Your task to perform on an android device: add a contact Image 0: 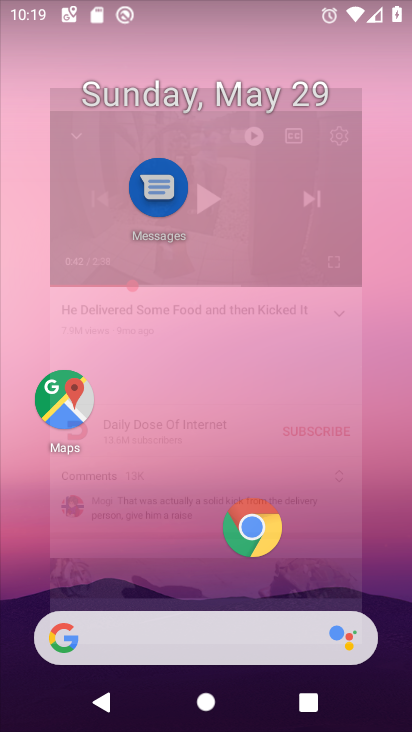
Step 0: press home button
Your task to perform on an android device: add a contact Image 1: 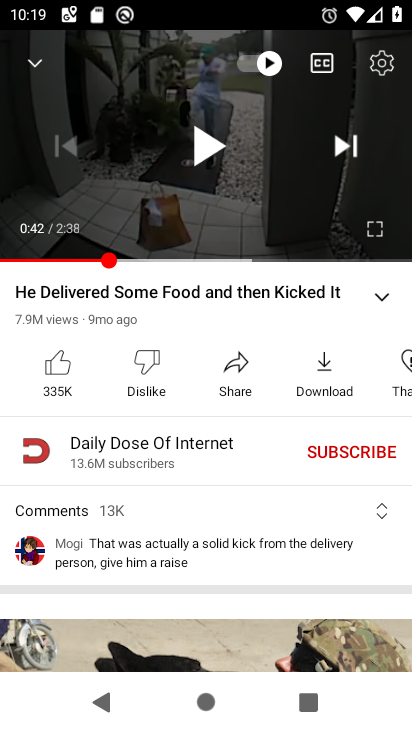
Step 1: press home button
Your task to perform on an android device: add a contact Image 2: 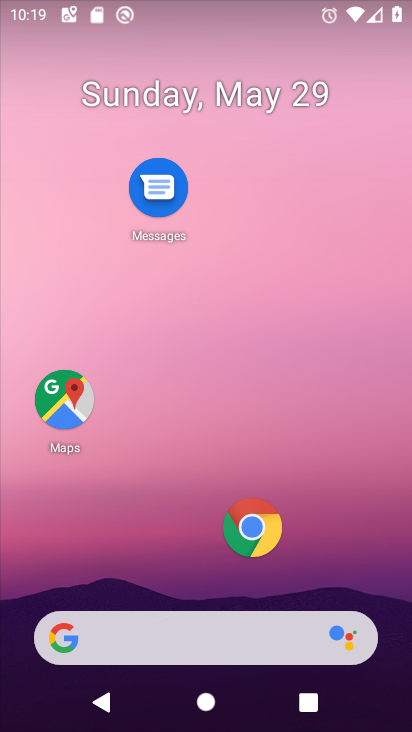
Step 2: drag from (207, 591) to (227, 83)
Your task to perform on an android device: add a contact Image 3: 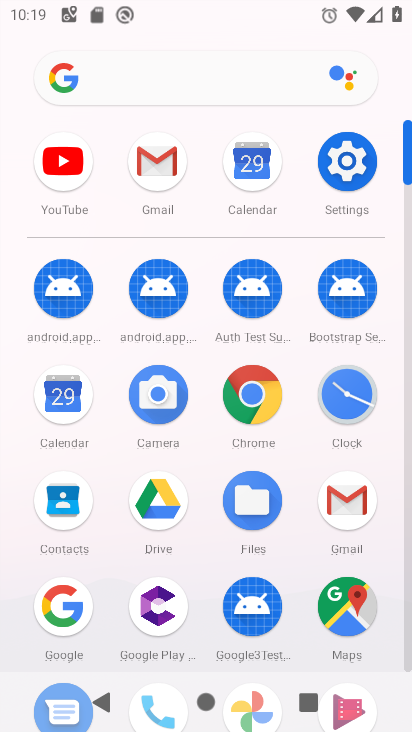
Step 3: click (65, 498)
Your task to perform on an android device: add a contact Image 4: 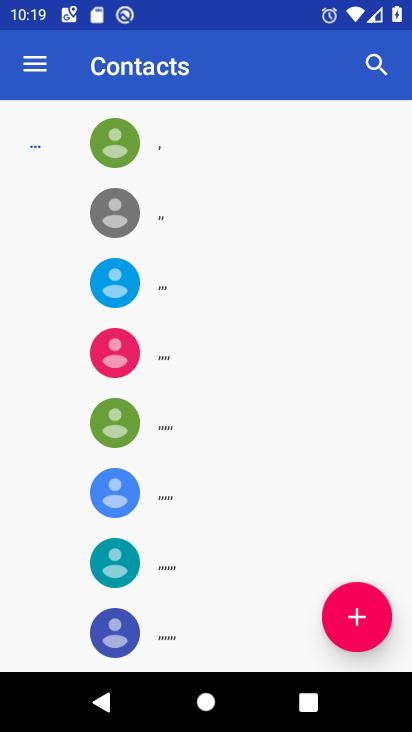
Step 4: click (359, 618)
Your task to perform on an android device: add a contact Image 5: 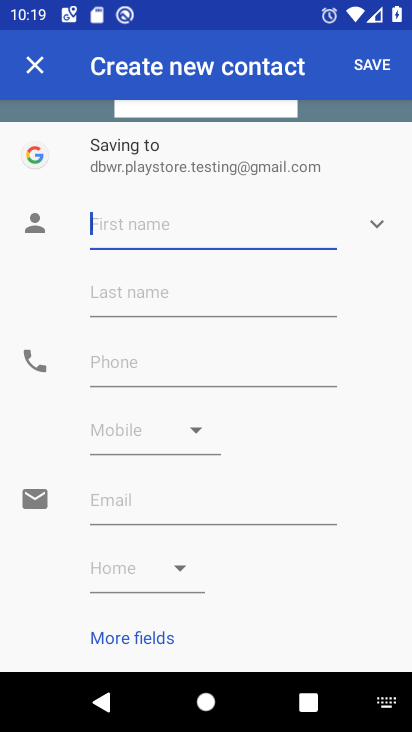
Step 5: type "hgftest"
Your task to perform on an android device: add a contact Image 6: 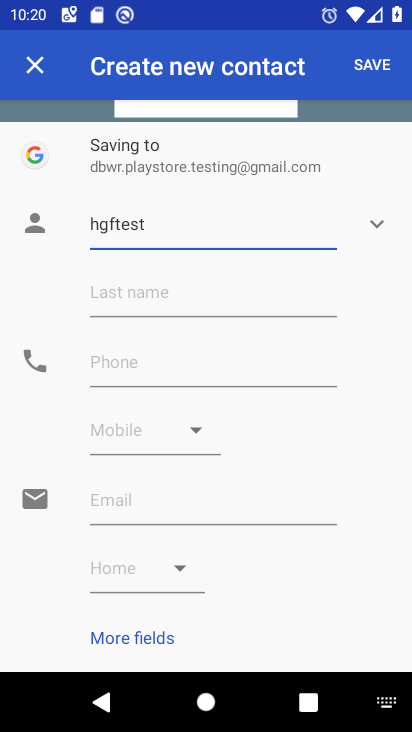
Step 6: click (380, 68)
Your task to perform on an android device: add a contact Image 7: 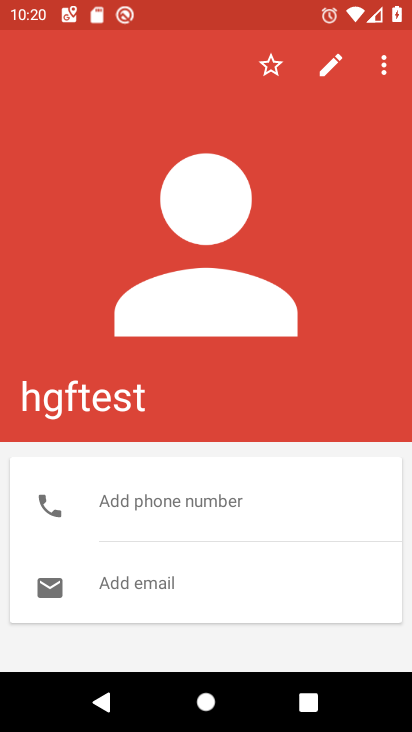
Step 7: task complete